Your task to perform on an android device: Show me popular videos on Youtube Image 0: 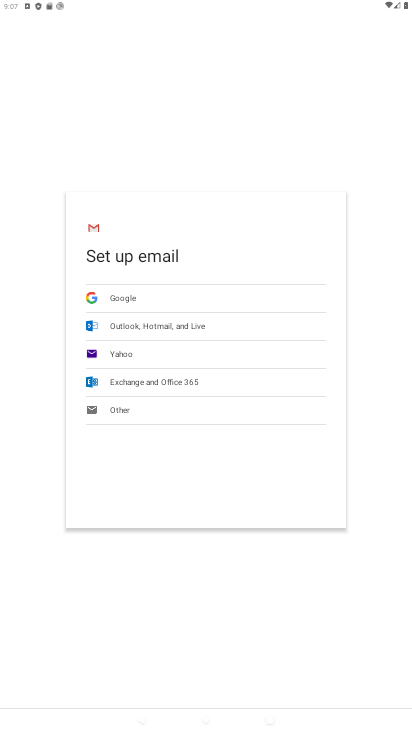
Step 0: press home button
Your task to perform on an android device: Show me popular videos on Youtube Image 1: 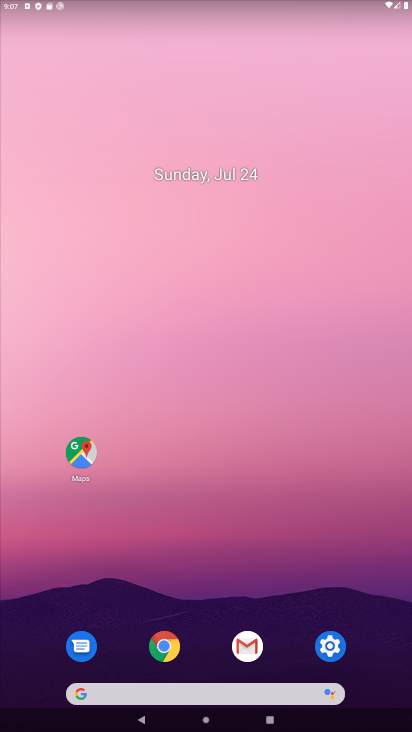
Step 1: drag from (296, 698) to (263, 155)
Your task to perform on an android device: Show me popular videos on Youtube Image 2: 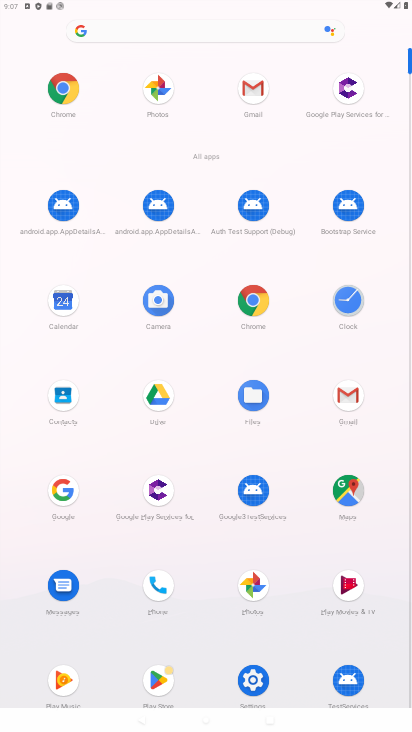
Step 2: drag from (187, 635) to (164, 337)
Your task to perform on an android device: Show me popular videos on Youtube Image 3: 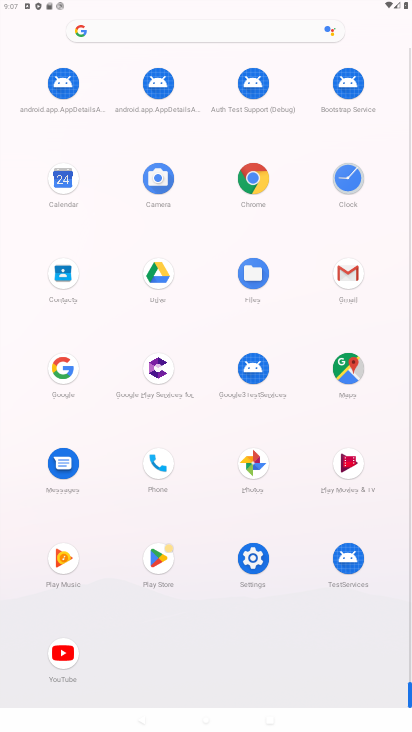
Step 3: click (53, 652)
Your task to perform on an android device: Show me popular videos on Youtube Image 4: 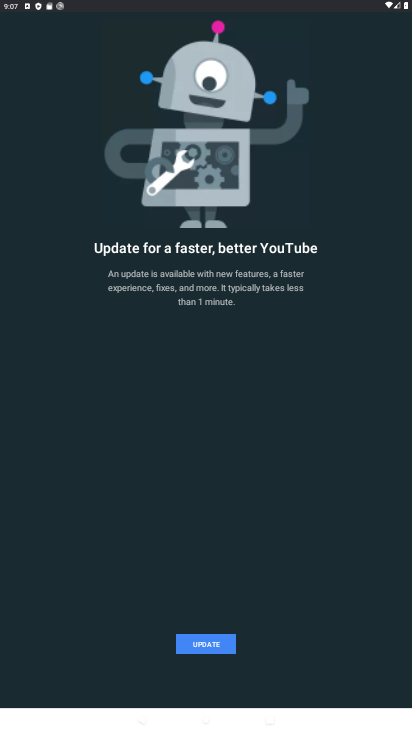
Step 4: click (212, 631)
Your task to perform on an android device: Show me popular videos on Youtube Image 5: 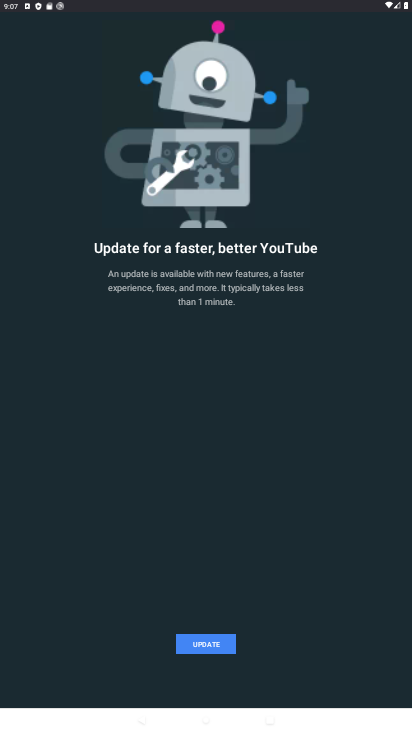
Step 5: click (191, 654)
Your task to perform on an android device: Show me popular videos on Youtube Image 6: 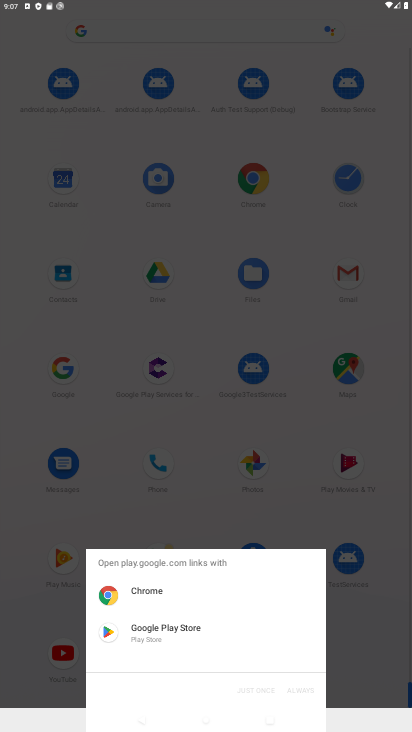
Step 6: click (168, 629)
Your task to perform on an android device: Show me popular videos on Youtube Image 7: 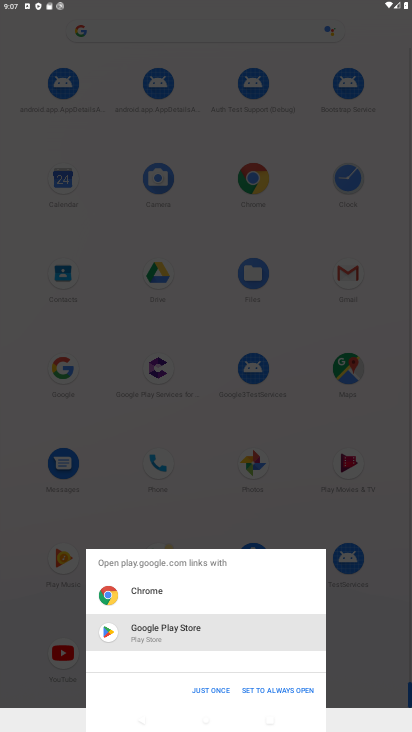
Step 7: click (208, 692)
Your task to perform on an android device: Show me popular videos on Youtube Image 8: 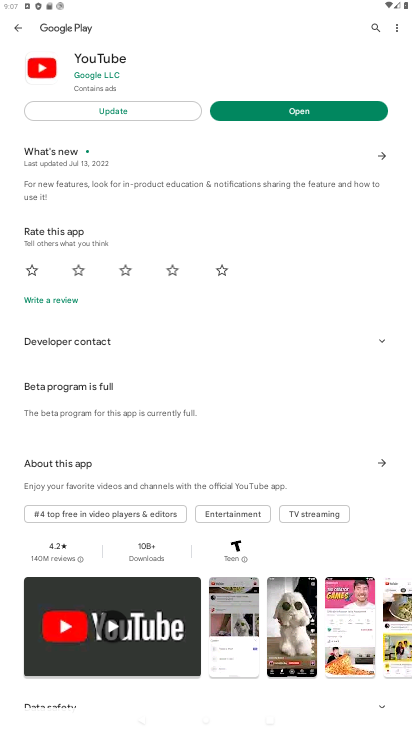
Step 8: click (128, 104)
Your task to perform on an android device: Show me popular videos on Youtube Image 9: 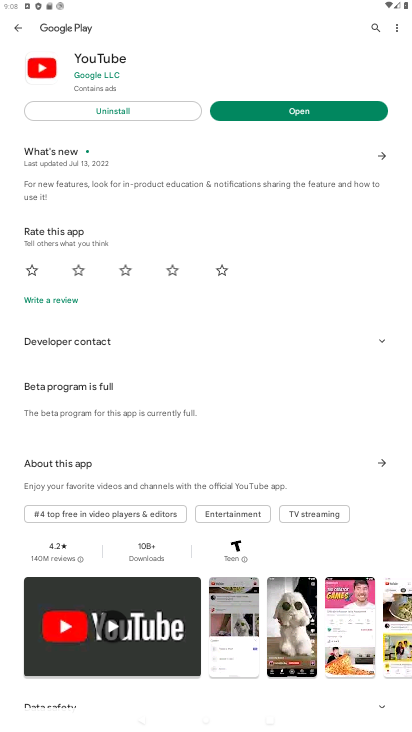
Step 9: click (331, 115)
Your task to perform on an android device: Show me popular videos on Youtube Image 10: 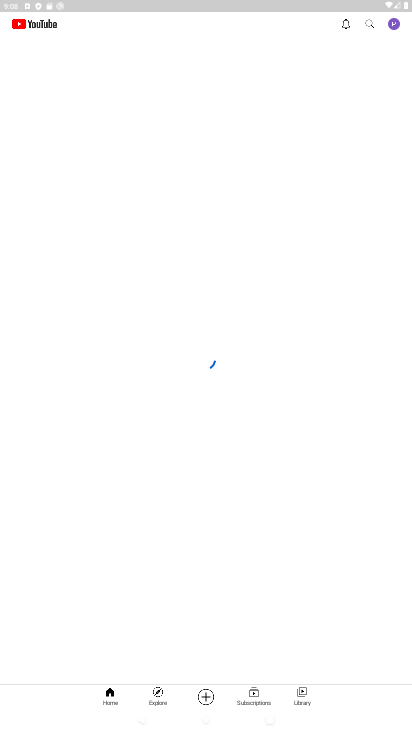
Step 10: click (283, 699)
Your task to perform on an android device: Show me popular videos on Youtube Image 11: 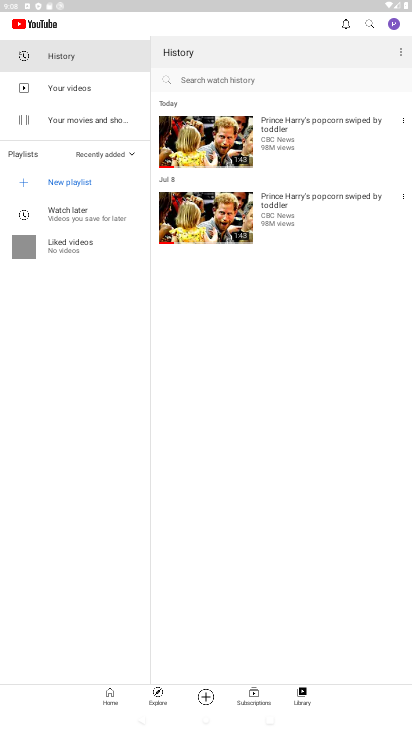
Step 11: task complete